Your task to perform on an android device: Turn on the flashlight Image 0: 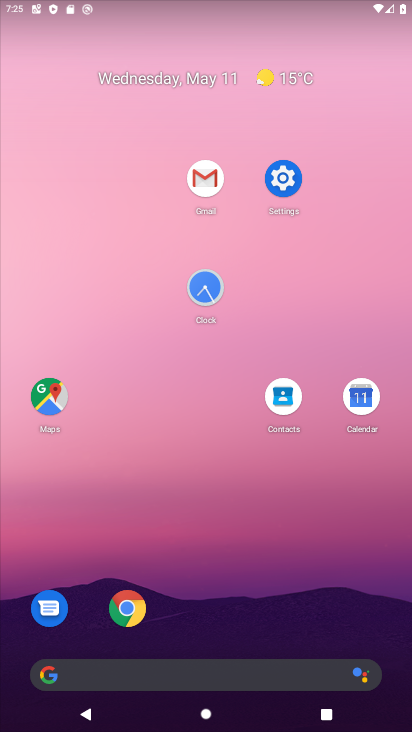
Step 0: drag from (234, 596) to (235, 61)
Your task to perform on an android device: Turn on the flashlight Image 1: 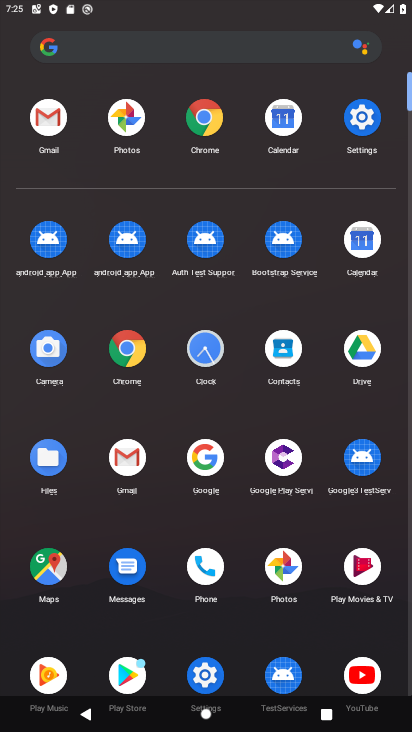
Step 1: click (347, 120)
Your task to perform on an android device: Turn on the flashlight Image 2: 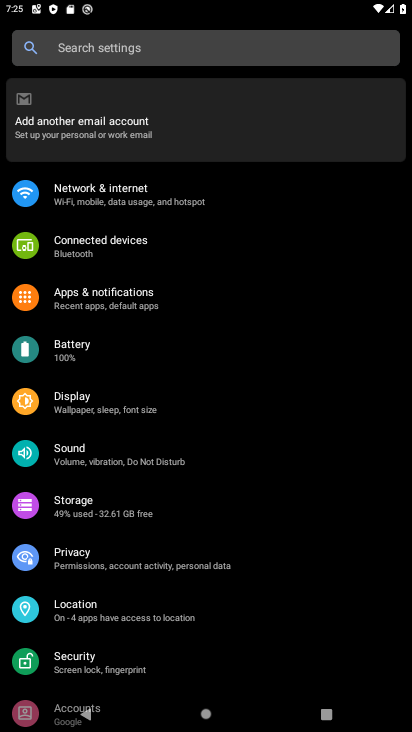
Step 2: click (151, 554)
Your task to perform on an android device: Turn on the flashlight Image 3: 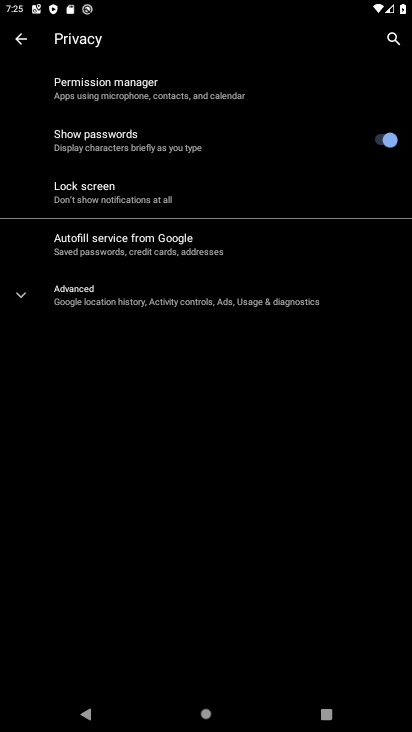
Step 3: task complete